Your task to perform on an android device: delete browsing data in the chrome app Image 0: 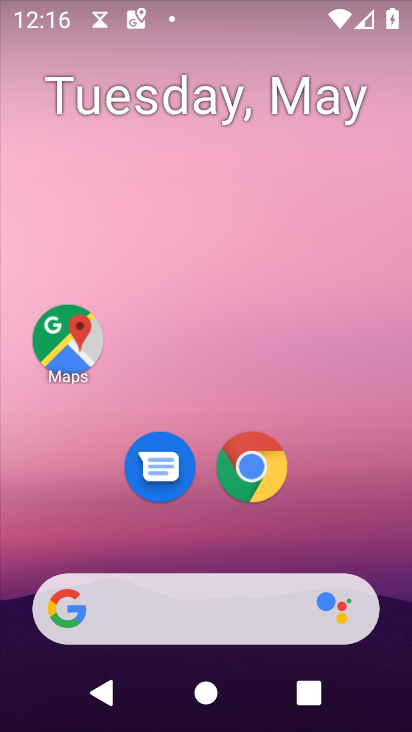
Step 0: click (256, 469)
Your task to perform on an android device: delete browsing data in the chrome app Image 1: 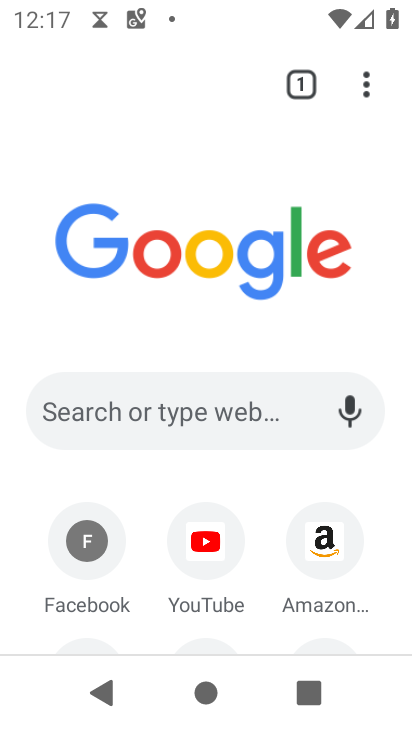
Step 1: click (373, 84)
Your task to perform on an android device: delete browsing data in the chrome app Image 2: 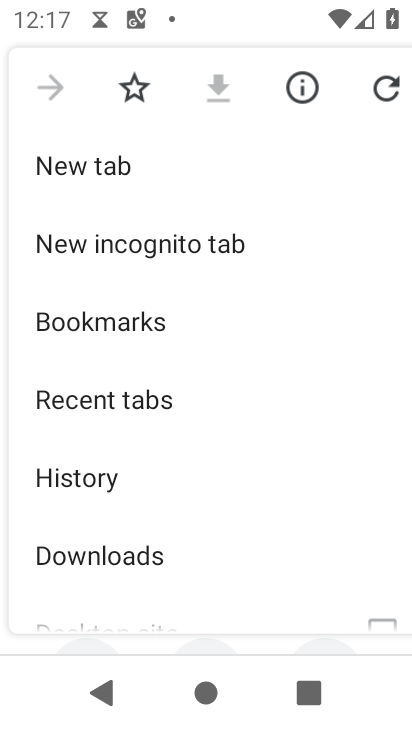
Step 2: click (102, 483)
Your task to perform on an android device: delete browsing data in the chrome app Image 3: 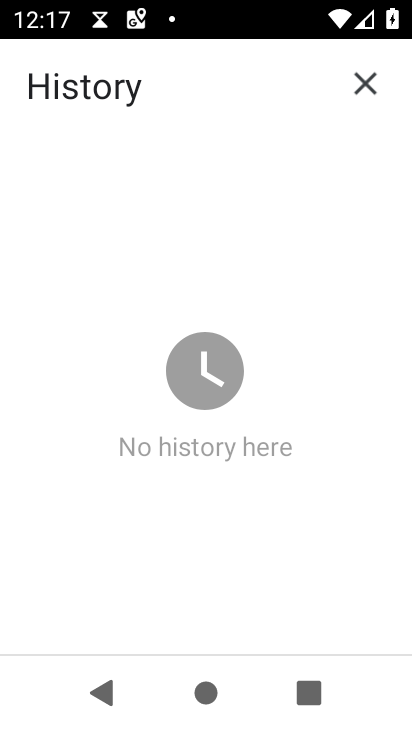
Step 3: task complete